Your task to perform on an android device: See recent photos Image 0: 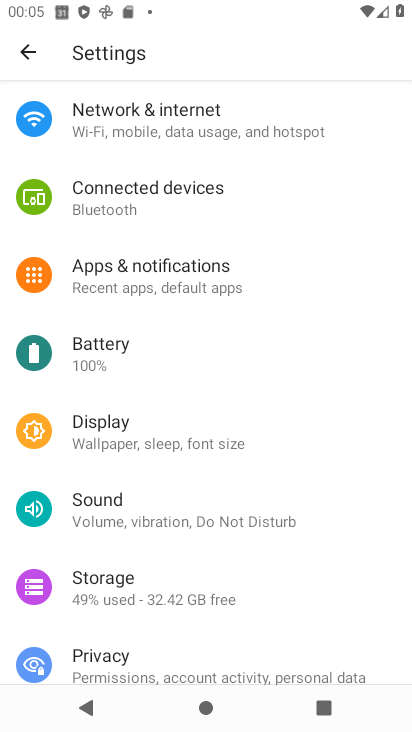
Step 0: press home button
Your task to perform on an android device: See recent photos Image 1: 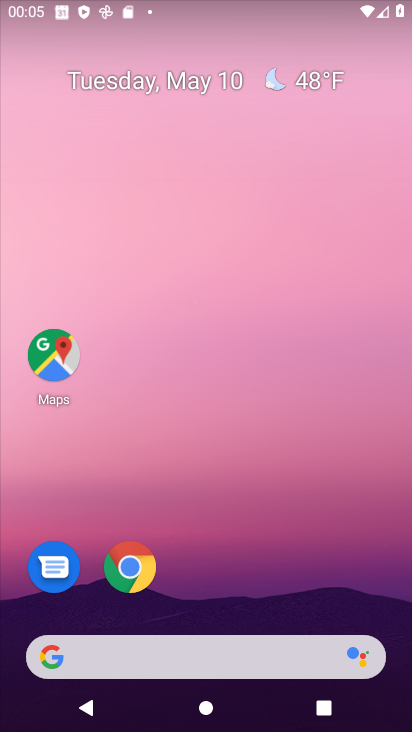
Step 1: drag from (210, 561) to (196, 90)
Your task to perform on an android device: See recent photos Image 2: 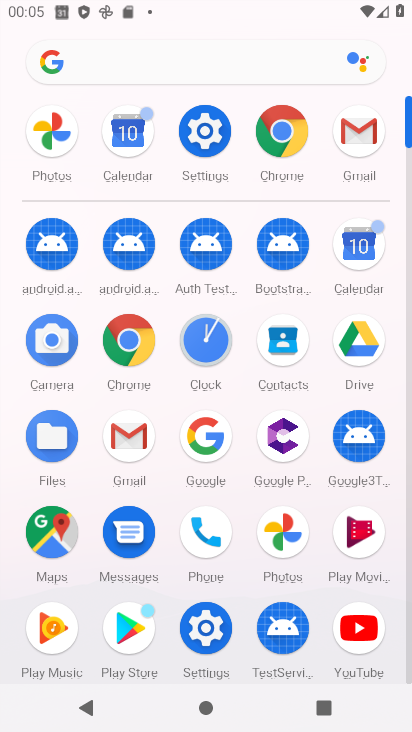
Step 2: click (52, 133)
Your task to perform on an android device: See recent photos Image 3: 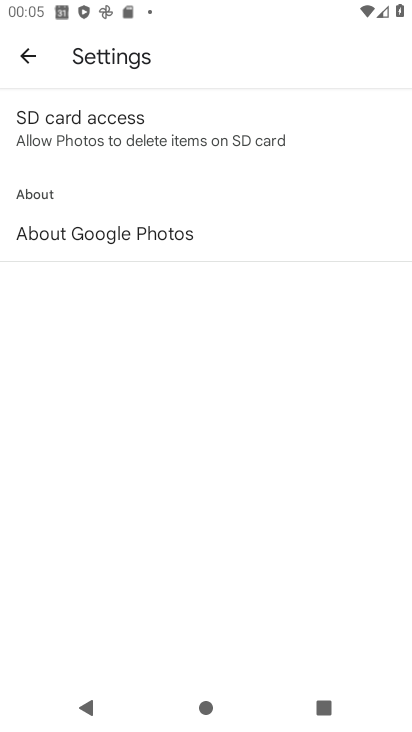
Step 3: press back button
Your task to perform on an android device: See recent photos Image 4: 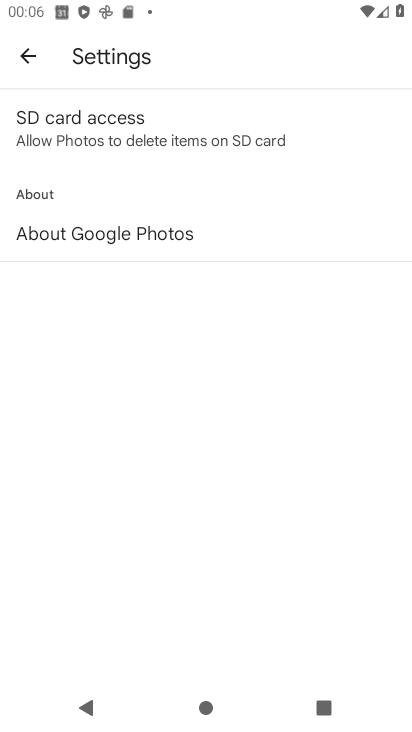
Step 4: press back button
Your task to perform on an android device: See recent photos Image 5: 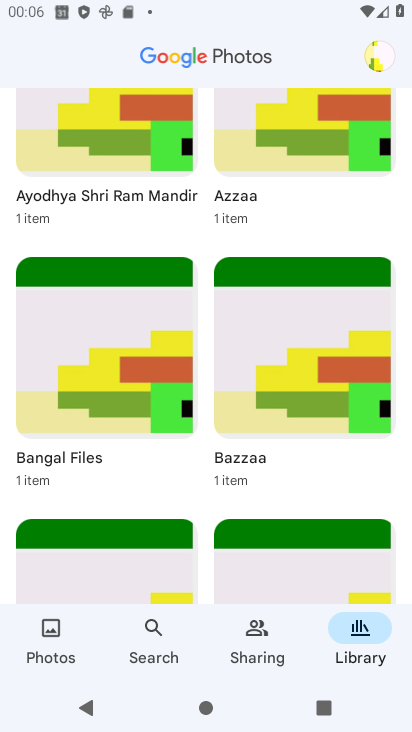
Step 5: drag from (344, 185) to (323, 480)
Your task to perform on an android device: See recent photos Image 6: 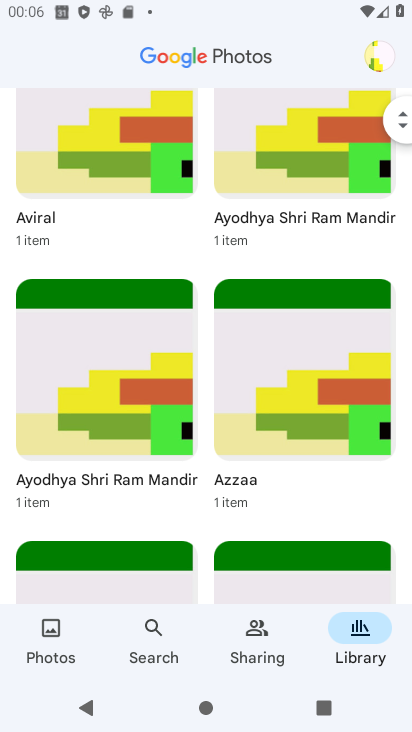
Step 6: drag from (284, 142) to (293, 493)
Your task to perform on an android device: See recent photos Image 7: 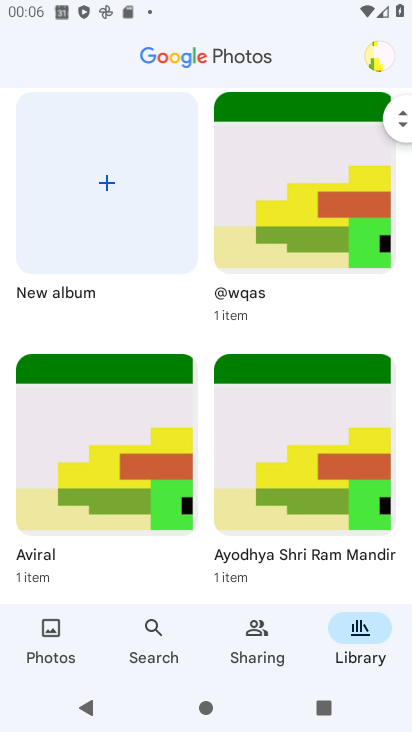
Step 7: drag from (306, 180) to (357, 462)
Your task to perform on an android device: See recent photos Image 8: 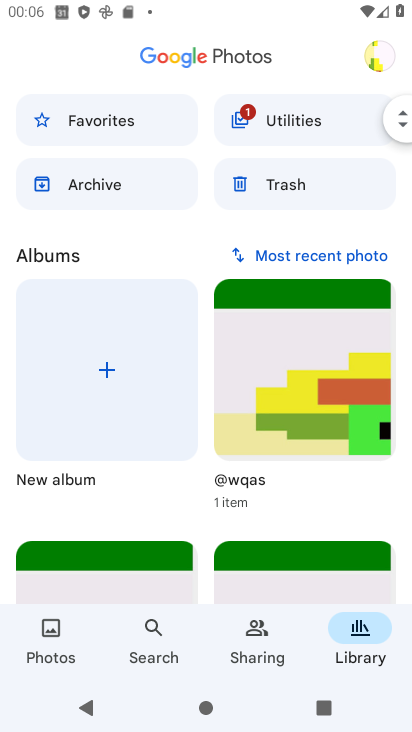
Step 8: click (326, 255)
Your task to perform on an android device: See recent photos Image 9: 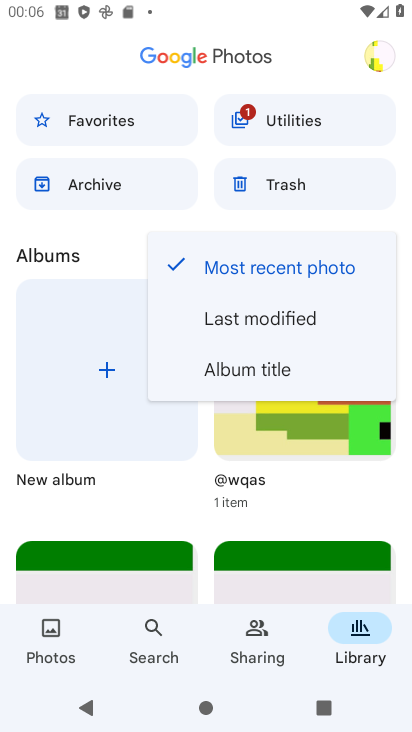
Step 9: click (325, 259)
Your task to perform on an android device: See recent photos Image 10: 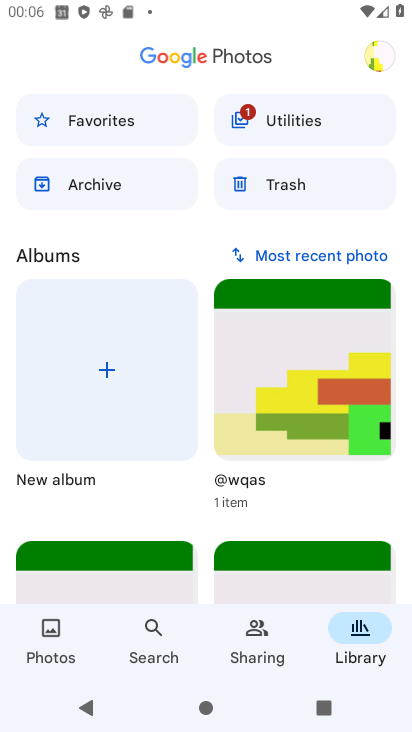
Step 10: task complete